Your task to perform on an android device: delete a single message in the gmail app Image 0: 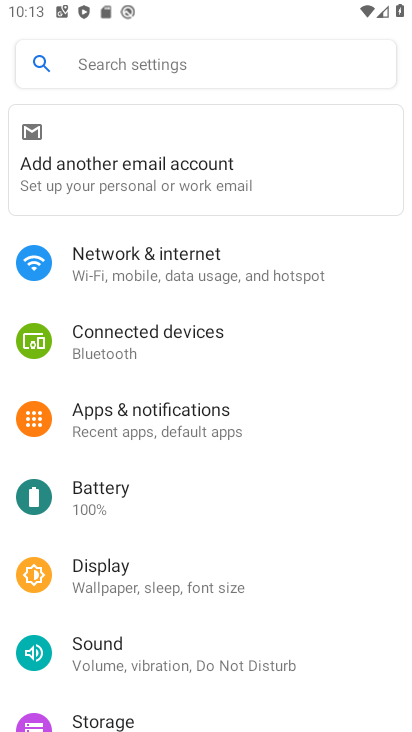
Step 0: drag from (177, 636) to (236, 171)
Your task to perform on an android device: delete a single message in the gmail app Image 1: 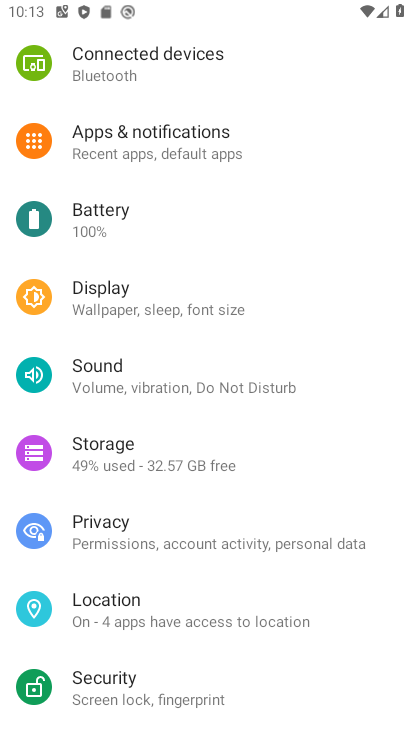
Step 1: press home button
Your task to perform on an android device: delete a single message in the gmail app Image 2: 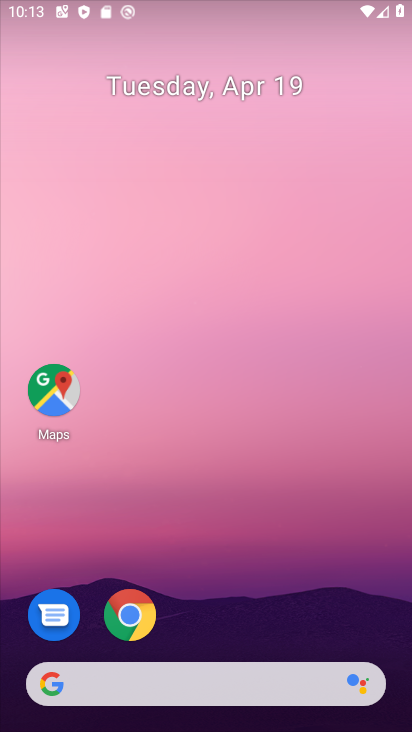
Step 2: drag from (206, 633) to (304, 160)
Your task to perform on an android device: delete a single message in the gmail app Image 3: 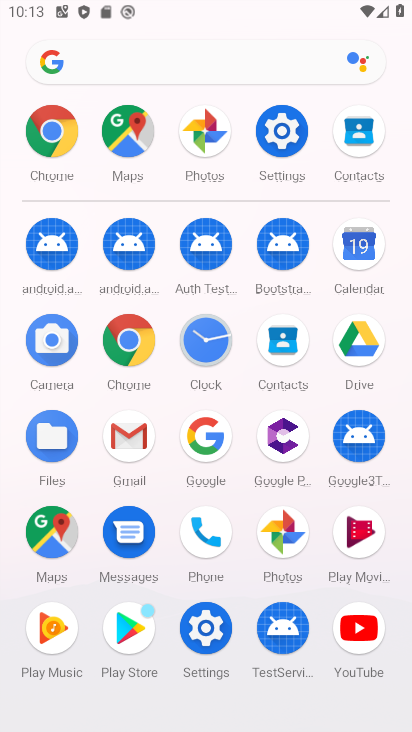
Step 3: click (126, 431)
Your task to perform on an android device: delete a single message in the gmail app Image 4: 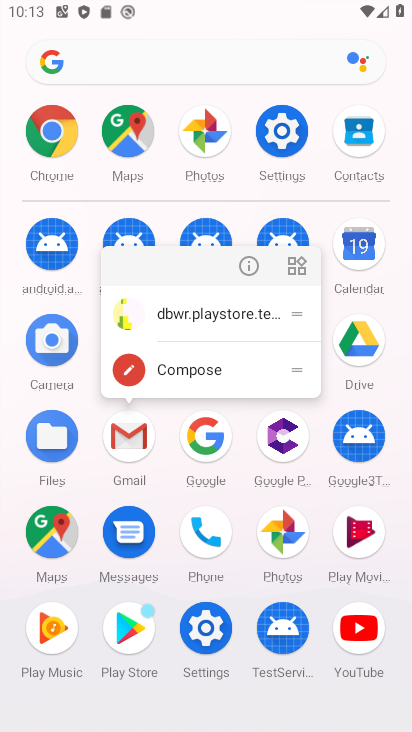
Step 4: click (251, 271)
Your task to perform on an android device: delete a single message in the gmail app Image 5: 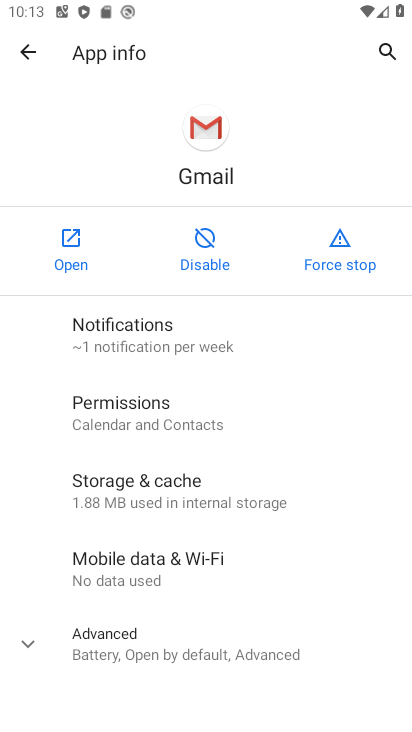
Step 5: click (72, 248)
Your task to perform on an android device: delete a single message in the gmail app Image 6: 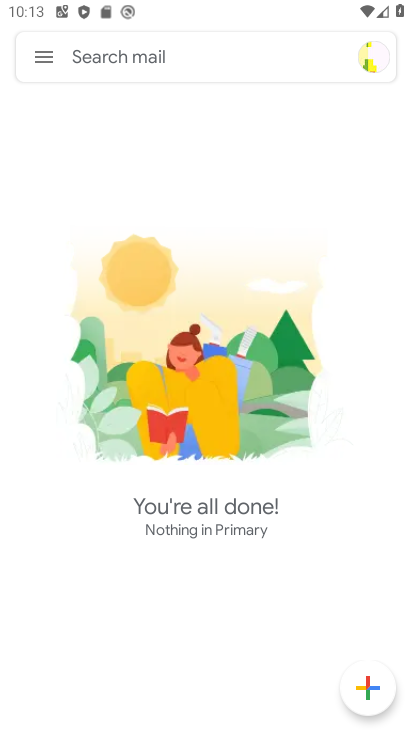
Step 6: click (39, 50)
Your task to perform on an android device: delete a single message in the gmail app Image 7: 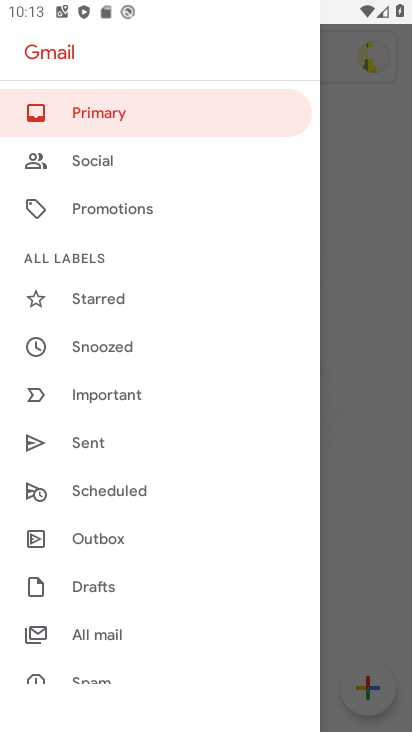
Step 7: drag from (138, 666) to (222, 44)
Your task to perform on an android device: delete a single message in the gmail app Image 8: 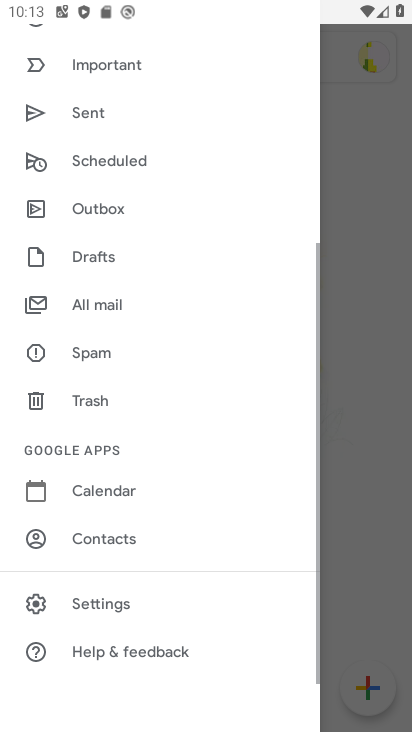
Step 8: click (113, 609)
Your task to perform on an android device: delete a single message in the gmail app Image 9: 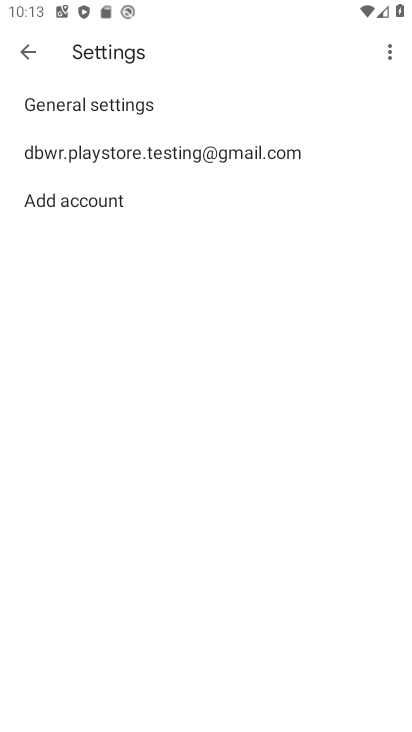
Step 9: click (26, 64)
Your task to perform on an android device: delete a single message in the gmail app Image 10: 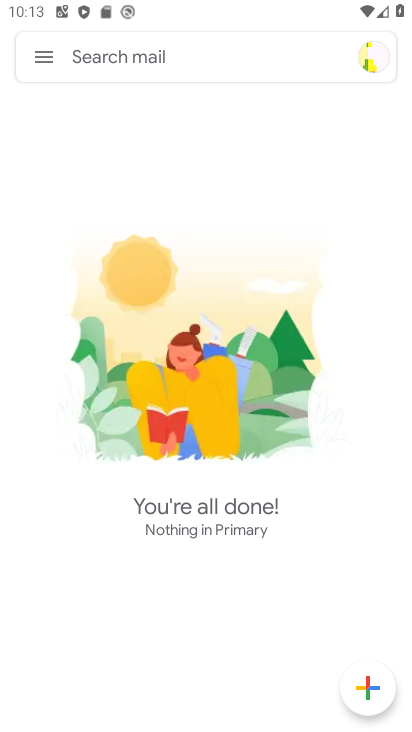
Step 10: drag from (253, 568) to (242, 218)
Your task to perform on an android device: delete a single message in the gmail app Image 11: 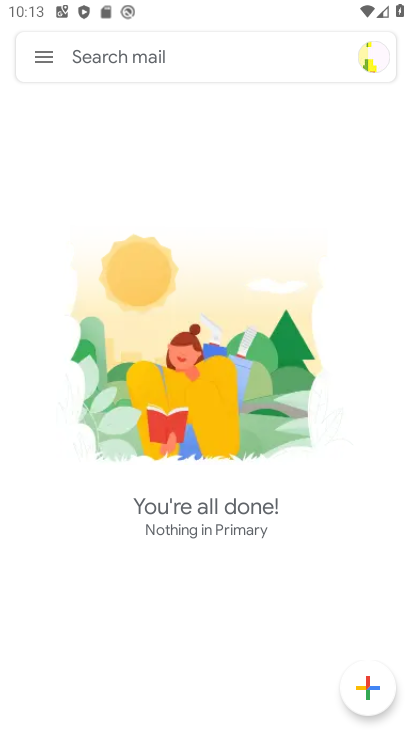
Step 11: click (48, 55)
Your task to perform on an android device: delete a single message in the gmail app Image 12: 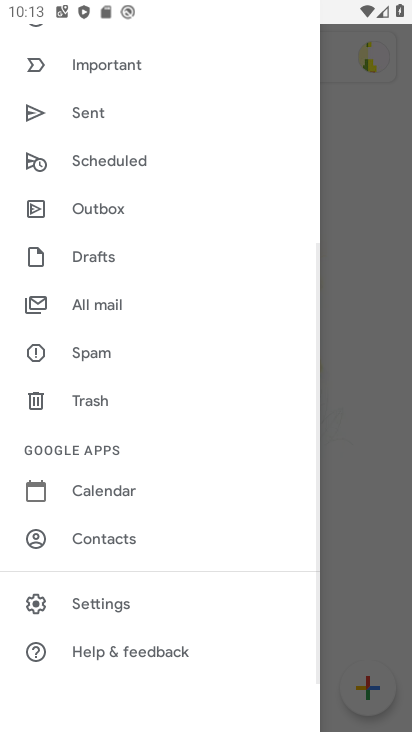
Step 12: click (345, 388)
Your task to perform on an android device: delete a single message in the gmail app Image 13: 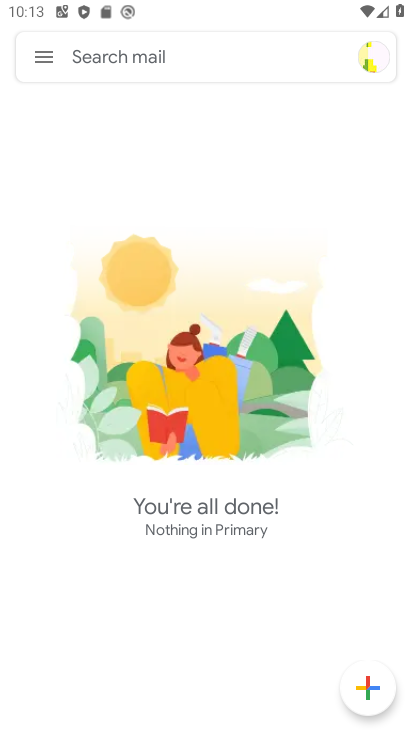
Step 13: drag from (181, 433) to (125, 153)
Your task to perform on an android device: delete a single message in the gmail app Image 14: 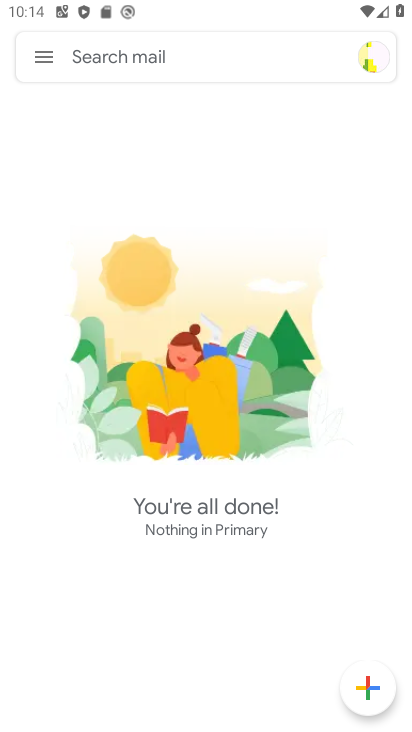
Step 14: click (156, 235)
Your task to perform on an android device: delete a single message in the gmail app Image 15: 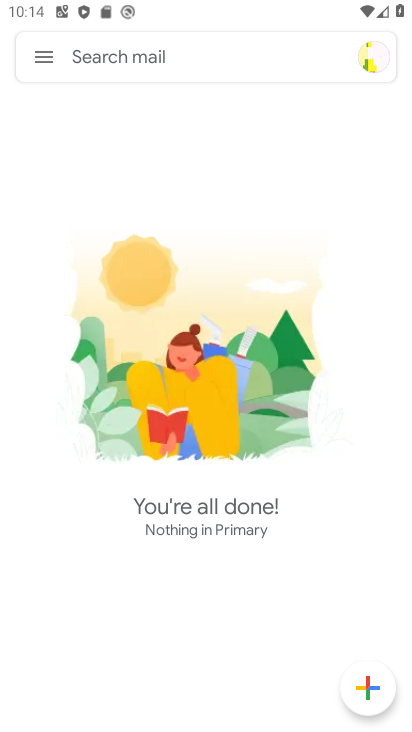
Step 15: click (181, 237)
Your task to perform on an android device: delete a single message in the gmail app Image 16: 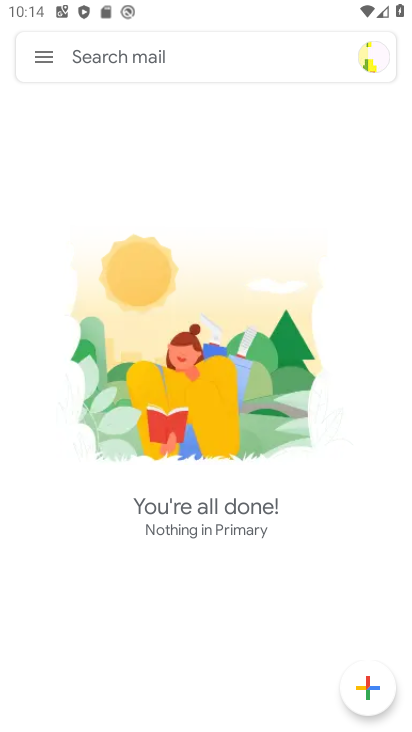
Step 16: click (275, 555)
Your task to perform on an android device: delete a single message in the gmail app Image 17: 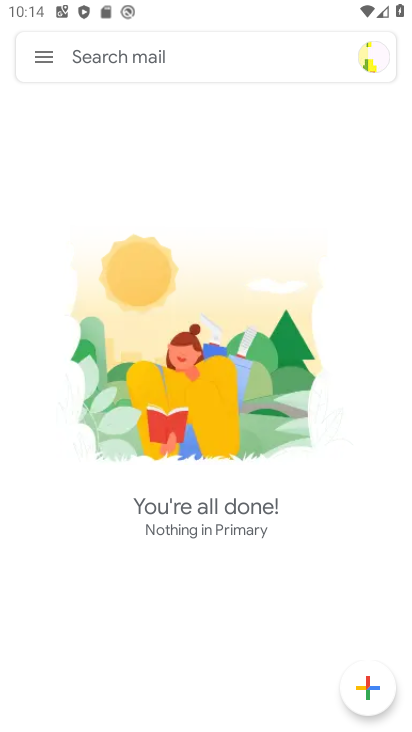
Step 17: task complete